Your task to perform on an android device: Do I have any events tomorrow? Image 0: 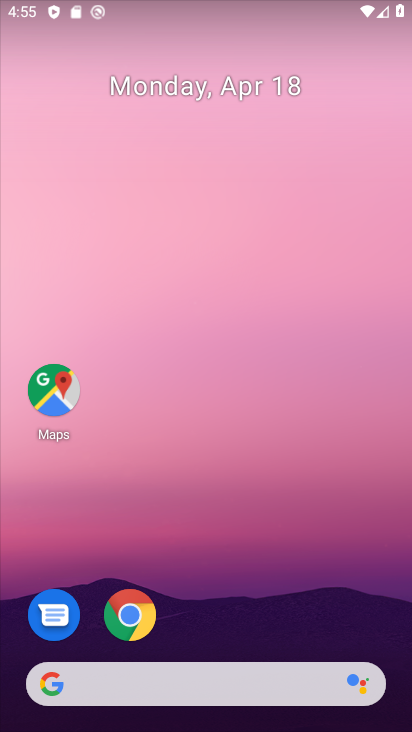
Step 0: drag from (327, 514) to (331, 16)
Your task to perform on an android device: Do I have any events tomorrow? Image 1: 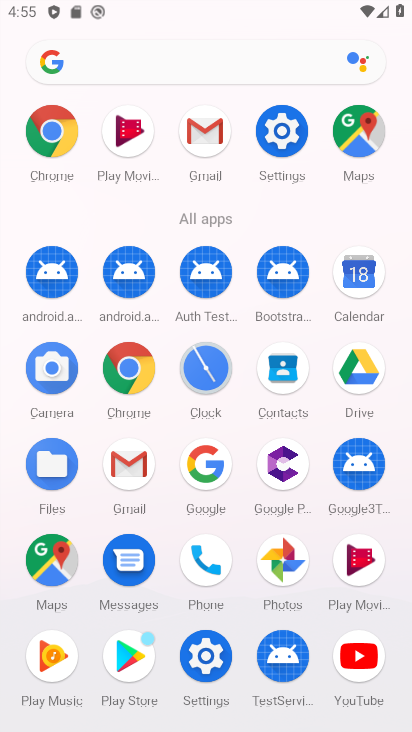
Step 1: drag from (397, 593) to (387, 313)
Your task to perform on an android device: Do I have any events tomorrow? Image 2: 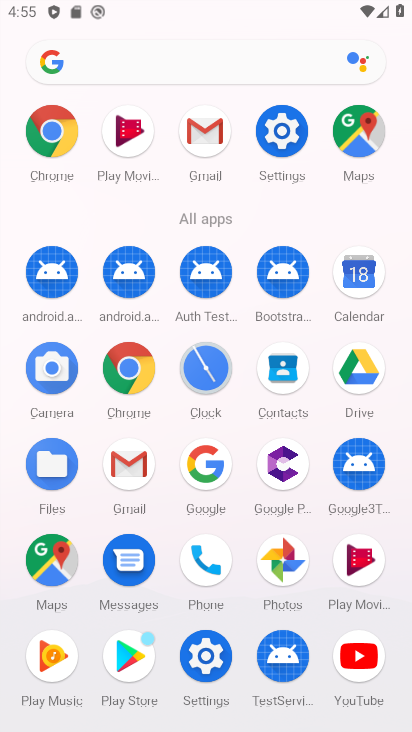
Step 2: click (366, 286)
Your task to perform on an android device: Do I have any events tomorrow? Image 3: 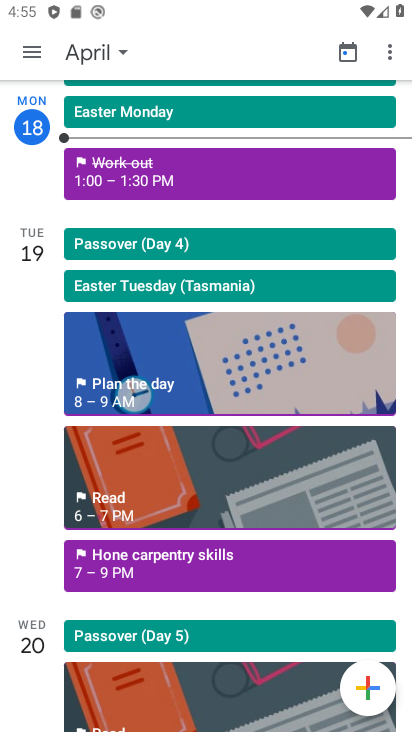
Step 3: click (120, 51)
Your task to perform on an android device: Do I have any events tomorrow? Image 4: 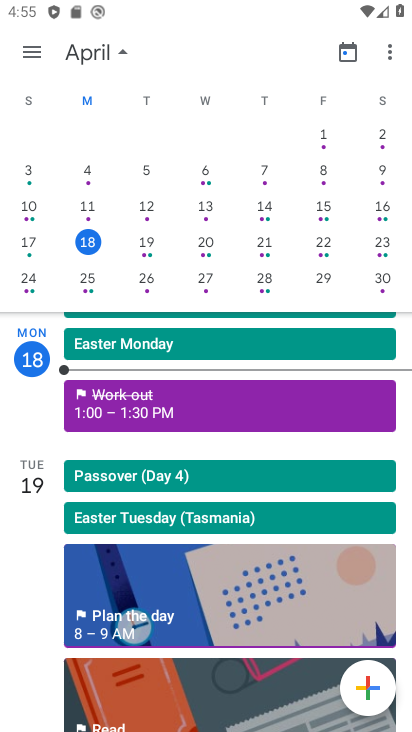
Step 4: click (151, 245)
Your task to perform on an android device: Do I have any events tomorrow? Image 5: 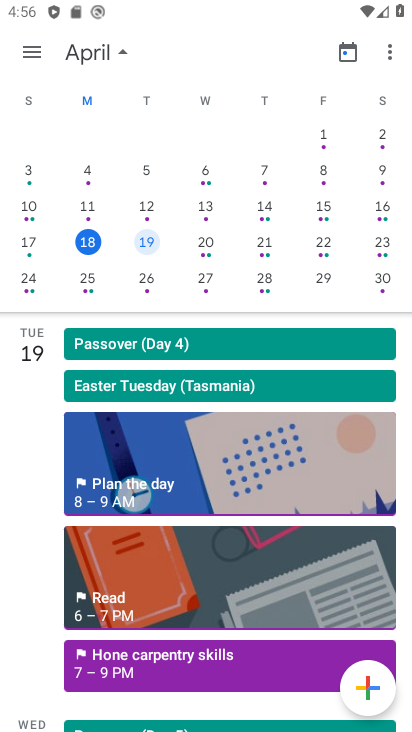
Step 5: task complete